Your task to perform on an android device: turn on bluetooth scan Image 0: 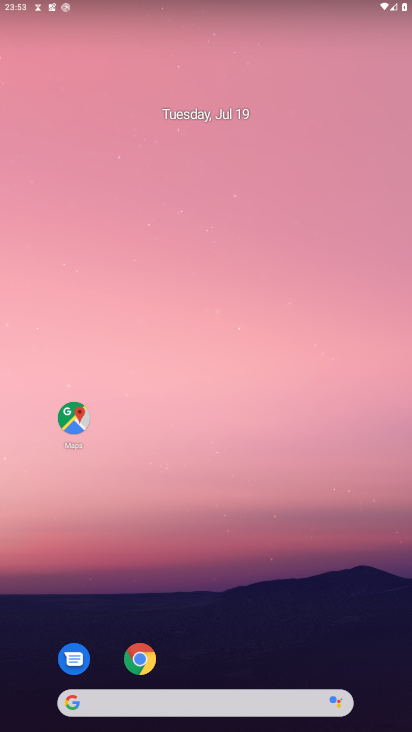
Step 0: drag from (265, 551) to (229, 159)
Your task to perform on an android device: turn on bluetooth scan Image 1: 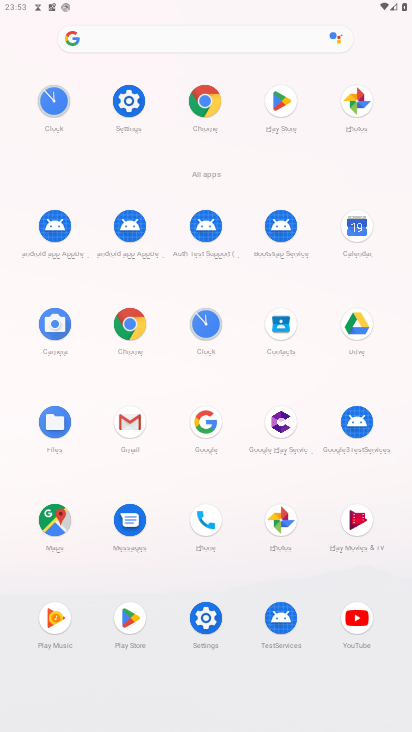
Step 1: click (121, 111)
Your task to perform on an android device: turn on bluetooth scan Image 2: 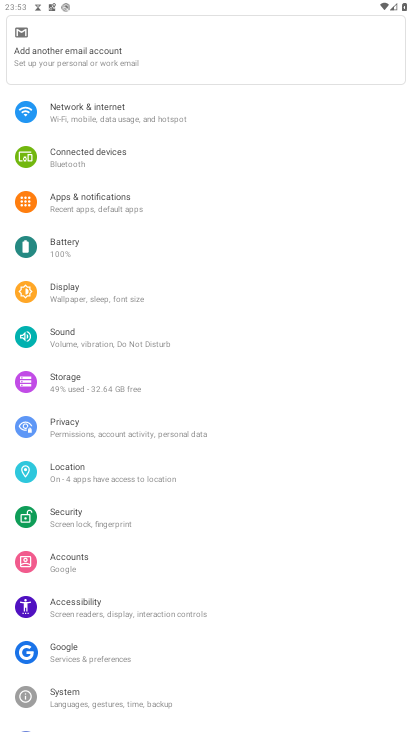
Step 2: click (93, 475)
Your task to perform on an android device: turn on bluetooth scan Image 3: 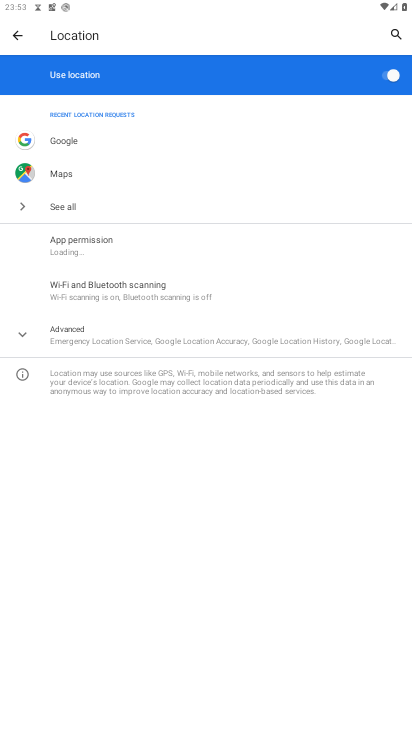
Step 3: click (151, 292)
Your task to perform on an android device: turn on bluetooth scan Image 4: 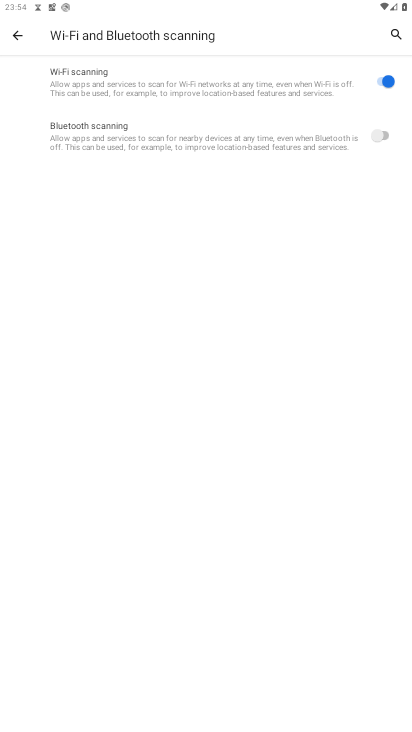
Step 4: click (385, 134)
Your task to perform on an android device: turn on bluetooth scan Image 5: 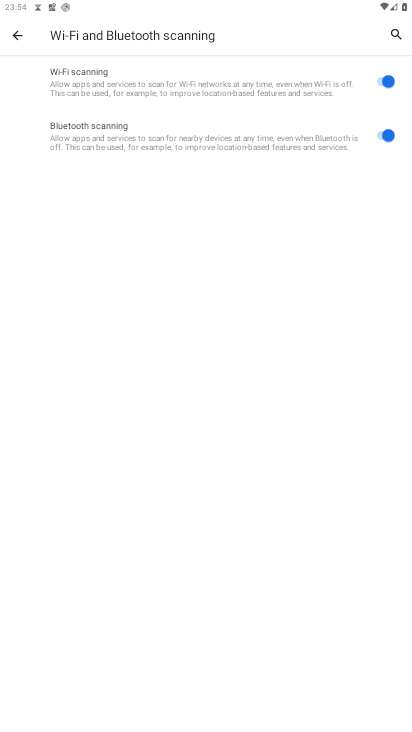
Step 5: task complete